Your task to perform on an android device: change notification settings in the gmail app Image 0: 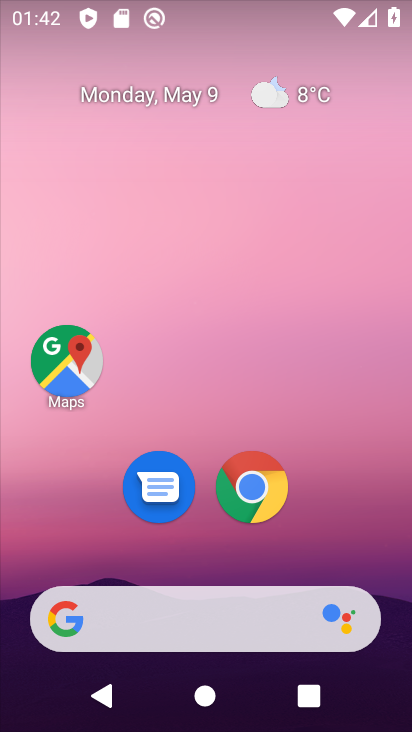
Step 0: drag from (336, 543) to (316, 106)
Your task to perform on an android device: change notification settings in the gmail app Image 1: 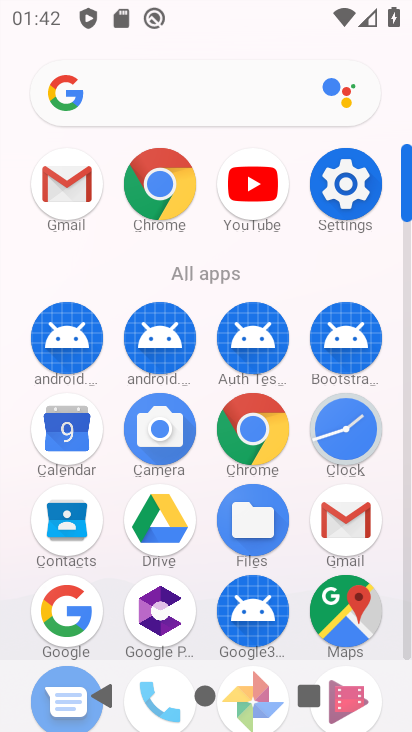
Step 1: click (330, 516)
Your task to perform on an android device: change notification settings in the gmail app Image 2: 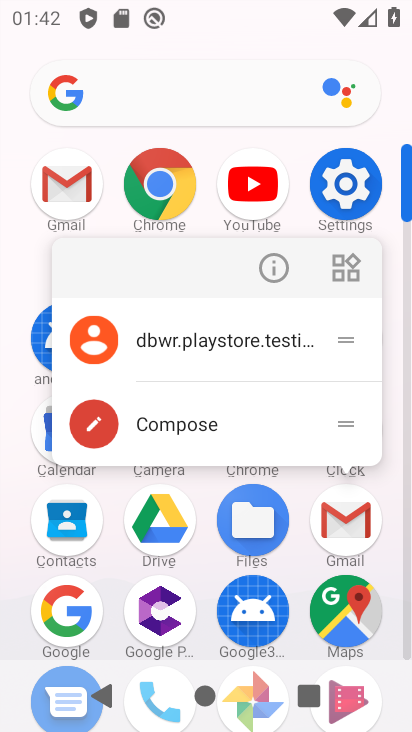
Step 2: click (278, 271)
Your task to perform on an android device: change notification settings in the gmail app Image 3: 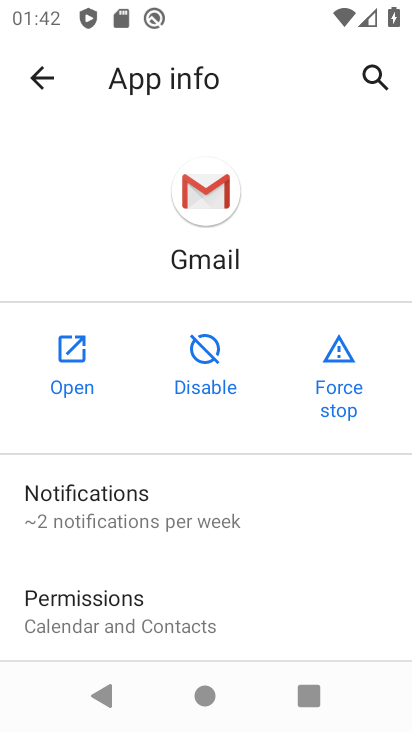
Step 3: click (164, 515)
Your task to perform on an android device: change notification settings in the gmail app Image 4: 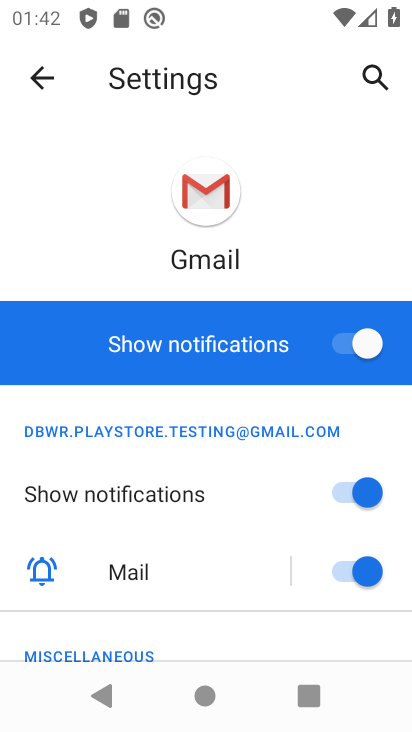
Step 4: click (349, 346)
Your task to perform on an android device: change notification settings in the gmail app Image 5: 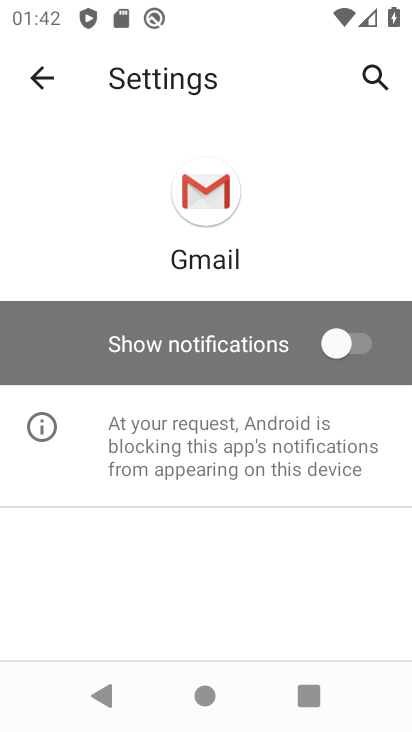
Step 5: task complete